Your task to perform on an android device: Open display settings Image 0: 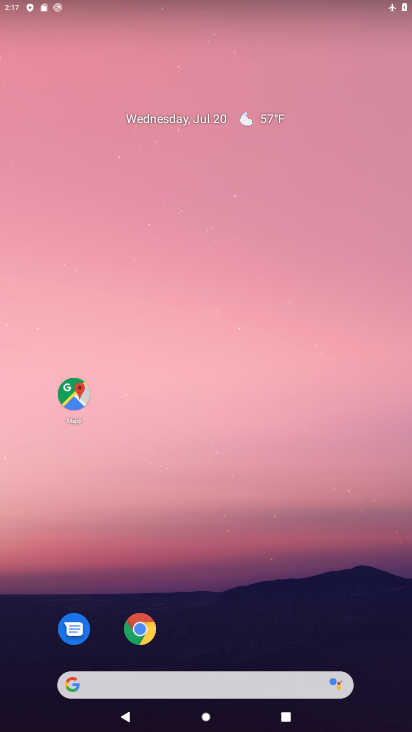
Step 0: drag from (212, 614) to (226, 166)
Your task to perform on an android device: Open display settings Image 1: 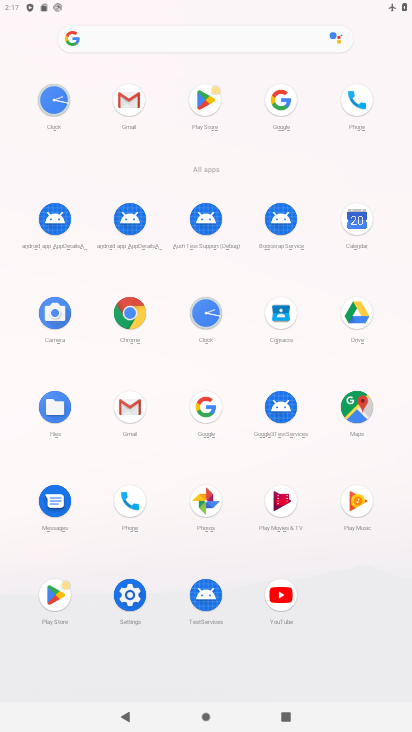
Step 1: click (143, 588)
Your task to perform on an android device: Open display settings Image 2: 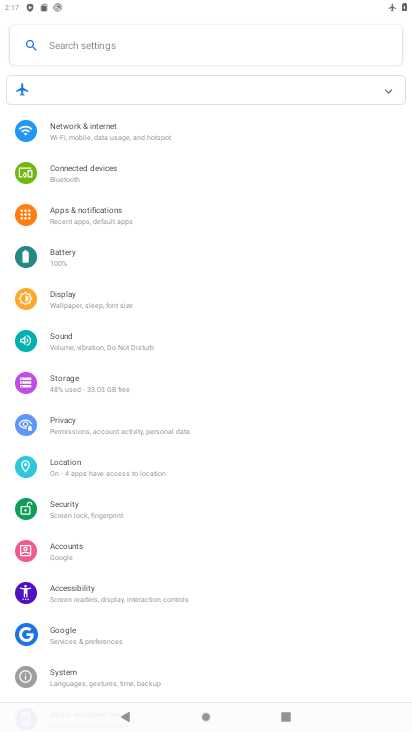
Step 2: click (60, 307)
Your task to perform on an android device: Open display settings Image 3: 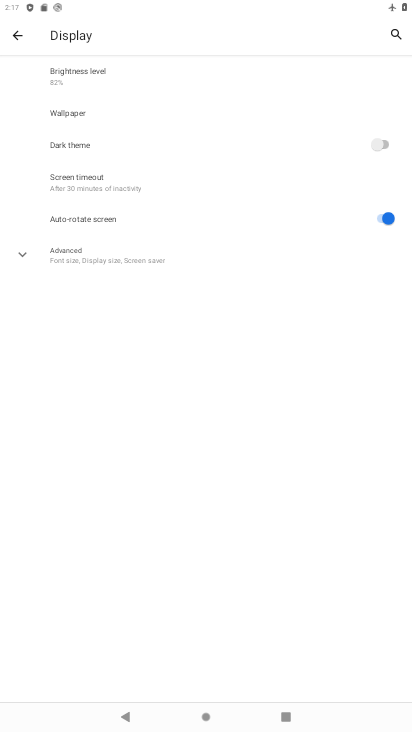
Step 3: task complete